Your task to perform on an android device: open app "Viber Messenger" (install if not already installed) Image 0: 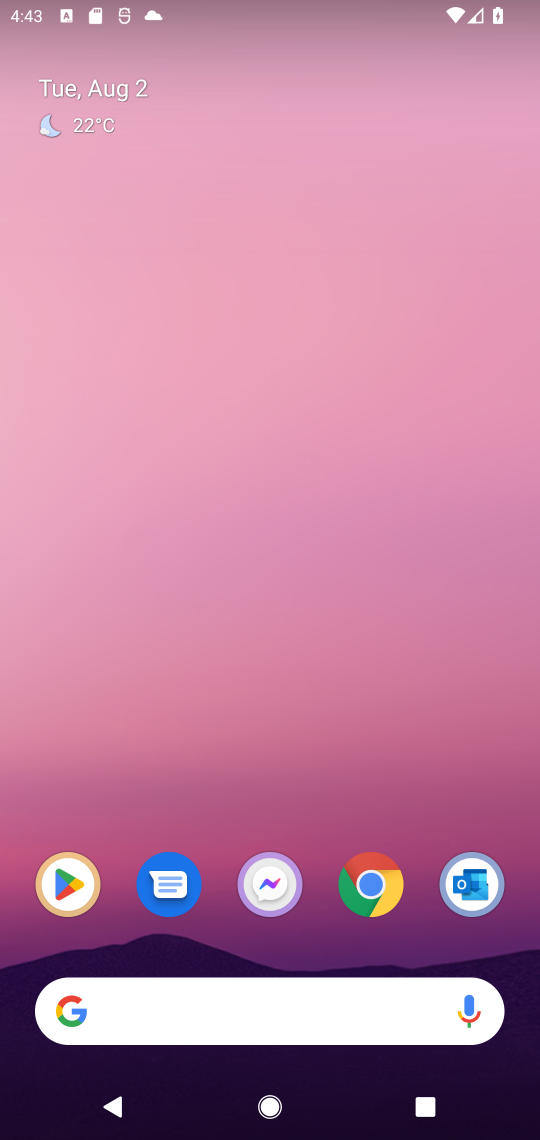
Step 0: click (59, 898)
Your task to perform on an android device: open app "Viber Messenger" (install if not already installed) Image 1: 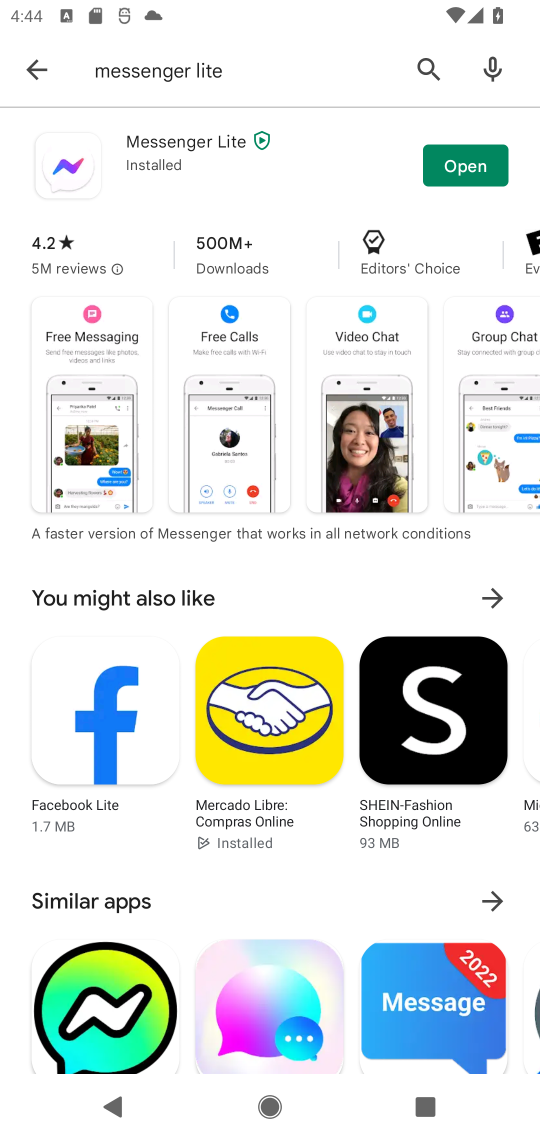
Step 1: click (33, 71)
Your task to perform on an android device: open app "Viber Messenger" (install if not already installed) Image 2: 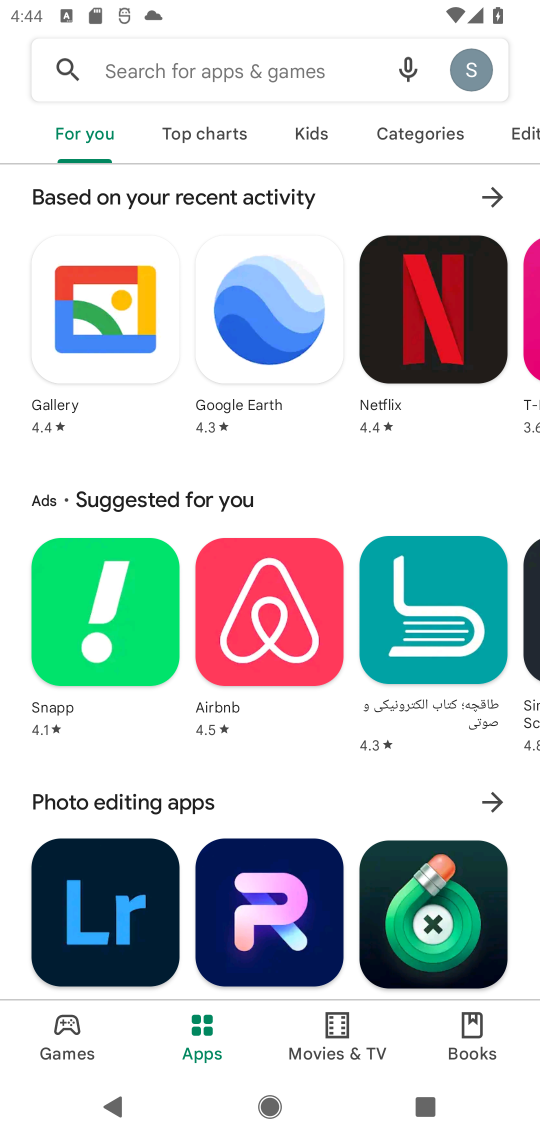
Step 2: click (217, 71)
Your task to perform on an android device: open app "Viber Messenger" (install if not already installed) Image 3: 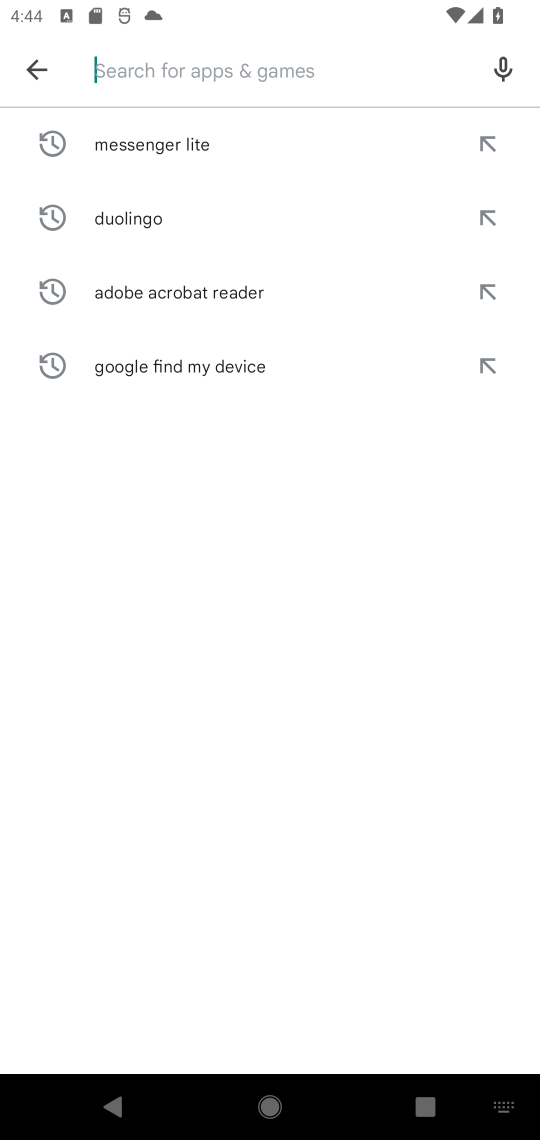
Step 3: type "Viber Messenger"
Your task to perform on an android device: open app "Viber Messenger" (install if not already installed) Image 4: 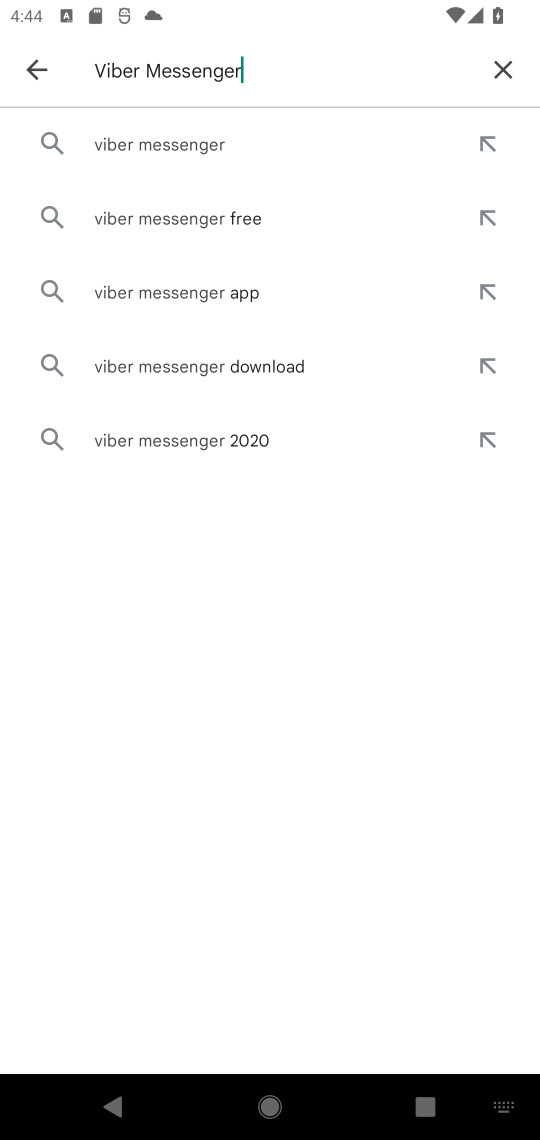
Step 4: click (192, 129)
Your task to perform on an android device: open app "Viber Messenger" (install if not already installed) Image 5: 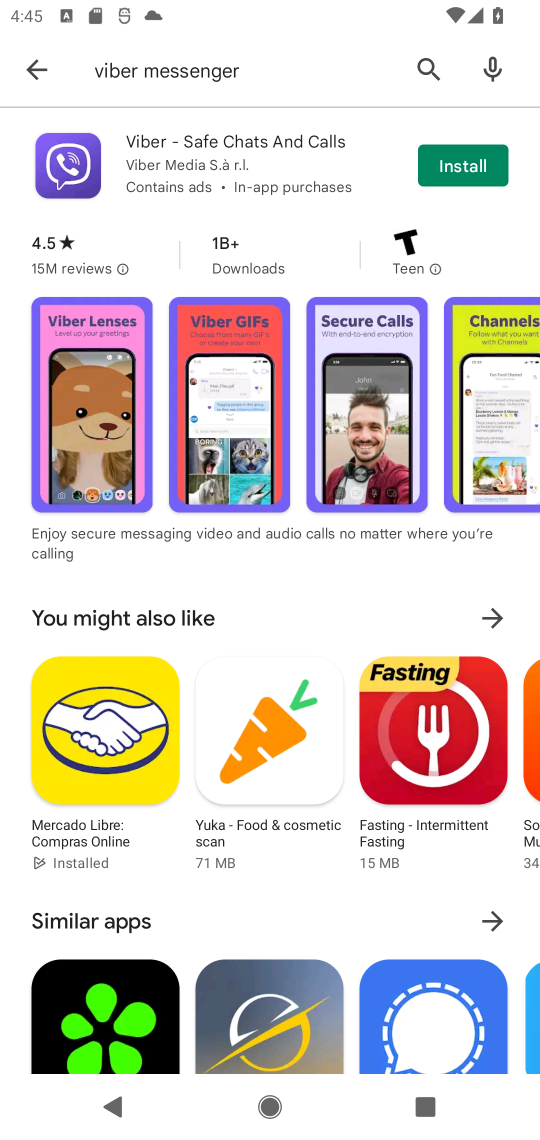
Step 5: click (469, 168)
Your task to perform on an android device: open app "Viber Messenger" (install if not already installed) Image 6: 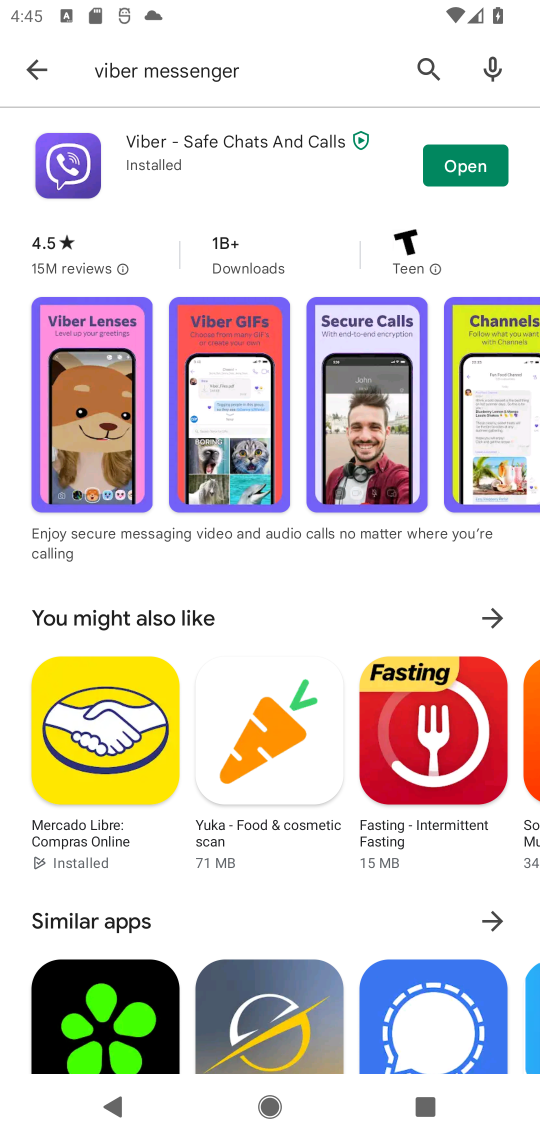
Step 6: click (469, 168)
Your task to perform on an android device: open app "Viber Messenger" (install if not already installed) Image 7: 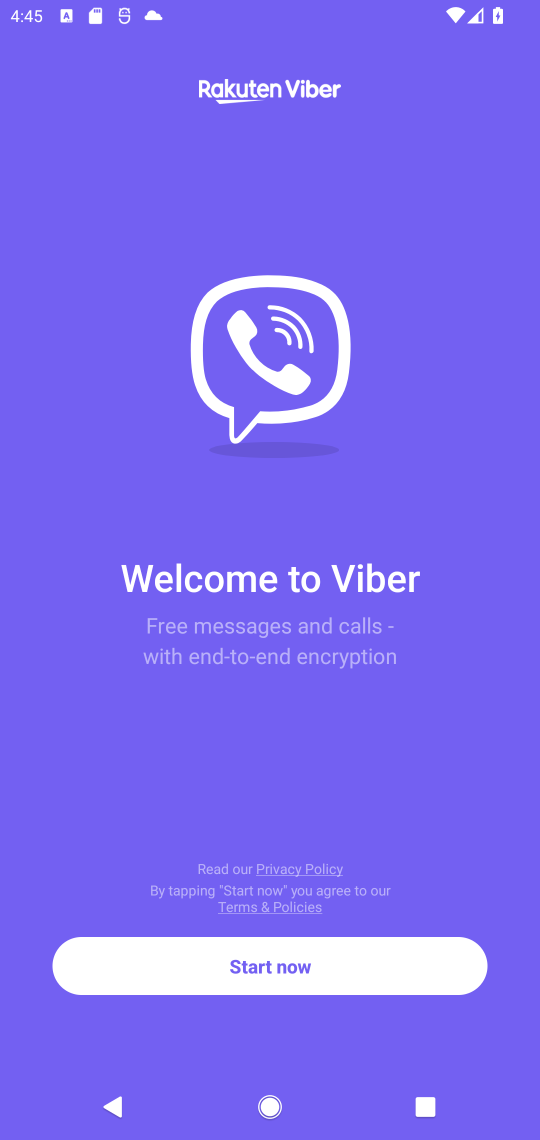
Step 7: task complete